Your task to perform on an android device: turn on priority inbox in the gmail app Image 0: 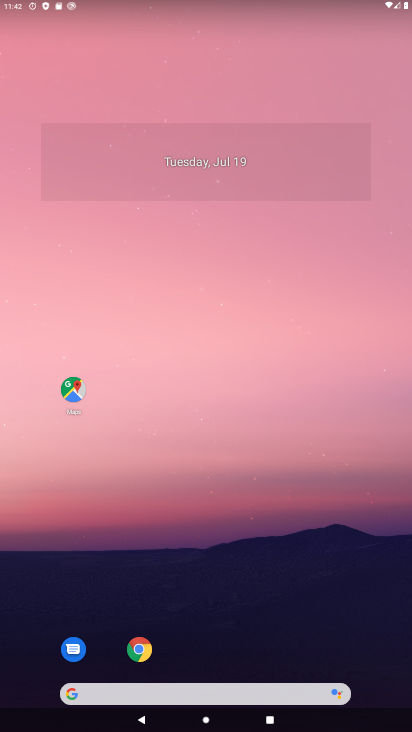
Step 0: click (242, 277)
Your task to perform on an android device: turn on priority inbox in the gmail app Image 1: 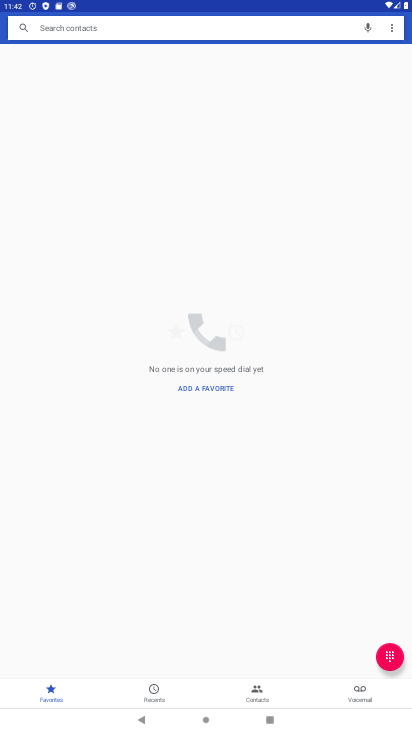
Step 1: press home button
Your task to perform on an android device: turn on priority inbox in the gmail app Image 2: 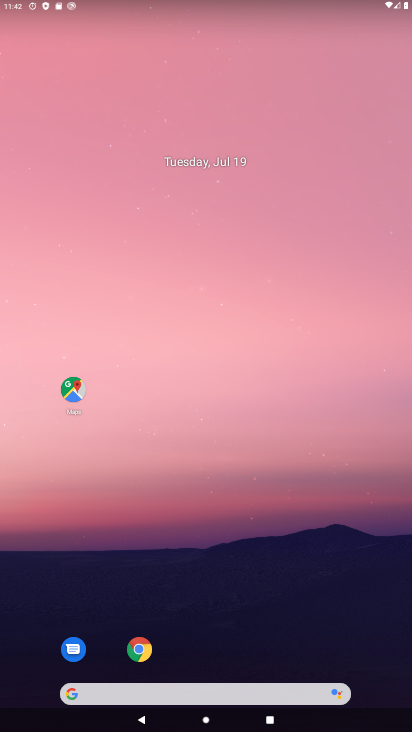
Step 2: drag from (237, 724) to (237, 280)
Your task to perform on an android device: turn on priority inbox in the gmail app Image 3: 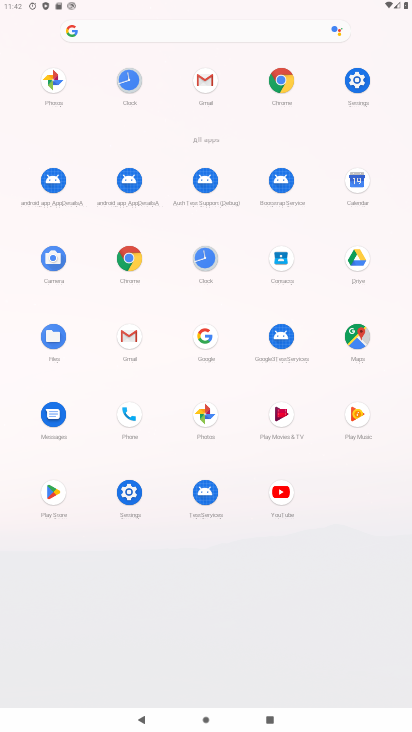
Step 3: click (130, 332)
Your task to perform on an android device: turn on priority inbox in the gmail app Image 4: 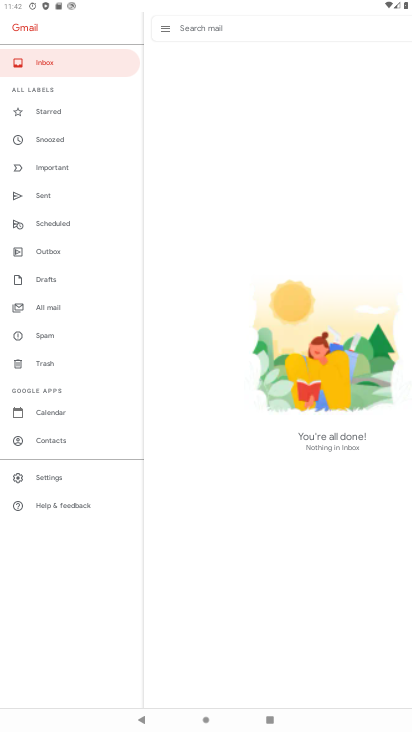
Step 4: click (42, 473)
Your task to perform on an android device: turn on priority inbox in the gmail app Image 5: 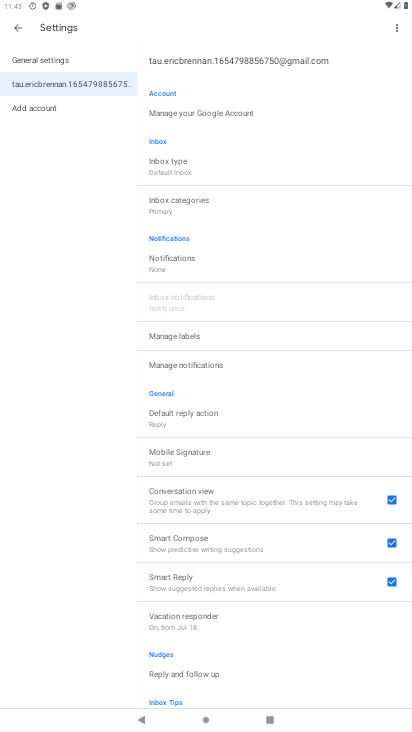
Step 5: click (166, 167)
Your task to perform on an android device: turn on priority inbox in the gmail app Image 6: 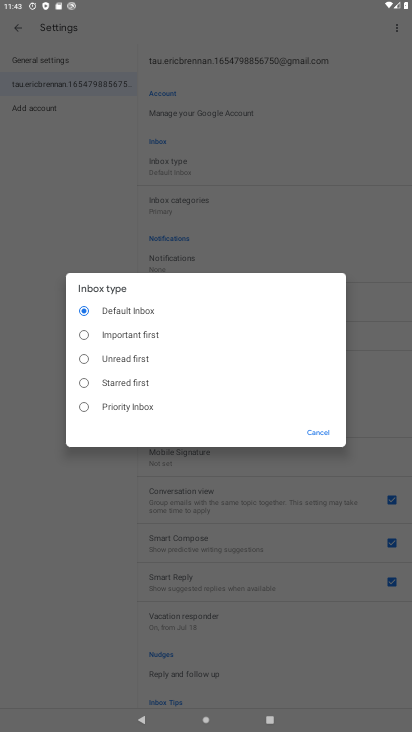
Step 6: click (82, 405)
Your task to perform on an android device: turn on priority inbox in the gmail app Image 7: 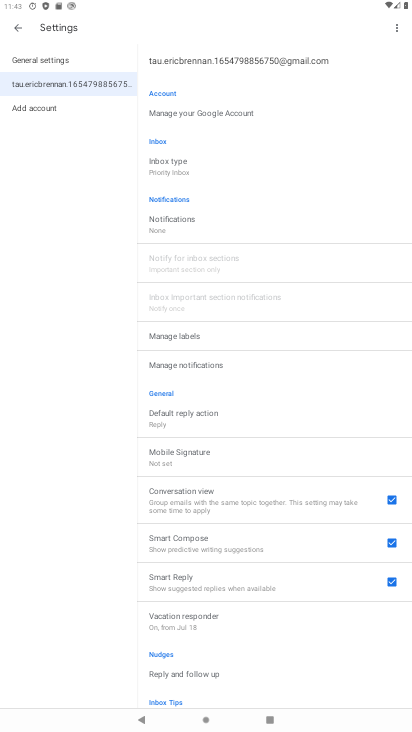
Step 7: task complete